Your task to perform on an android device: Open calendar and show me the second week of next month Image 0: 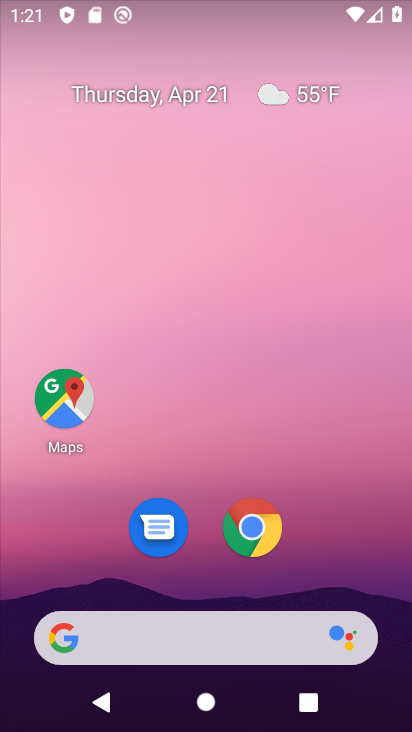
Step 0: drag from (308, 551) to (351, 158)
Your task to perform on an android device: Open calendar and show me the second week of next month Image 1: 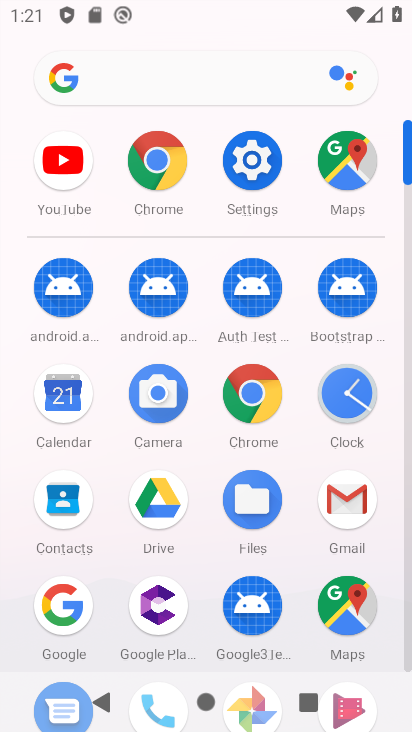
Step 1: click (52, 398)
Your task to perform on an android device: Open calendar and show me the second week of next month Image 2: 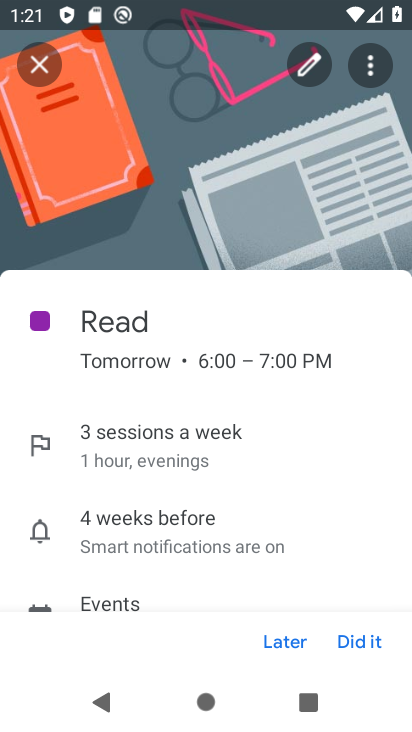
Step 2: click (26, 63)
Your task to perform on an android device: Open calendar and show me the second week of next month Image 3: 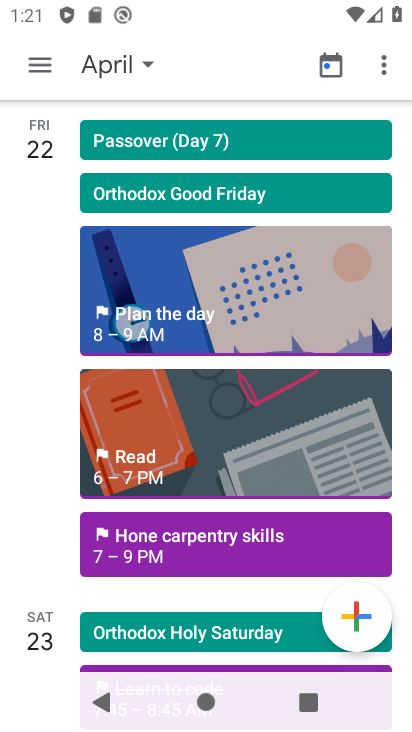
Step 3: click (149, 63)
Your task to perform on an android device: Open calendar and show me the second week of next month Image 4: 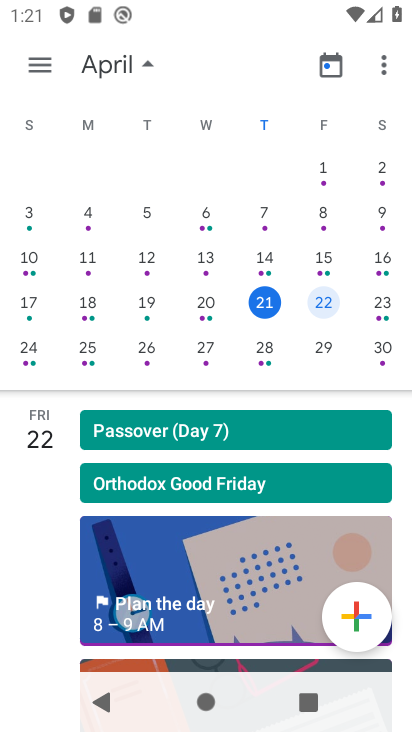
Step 4: drag from (354, 236) to (26, 230)
Your task to perform on an android device: Open calendar and show me the second week of next month Image 5: 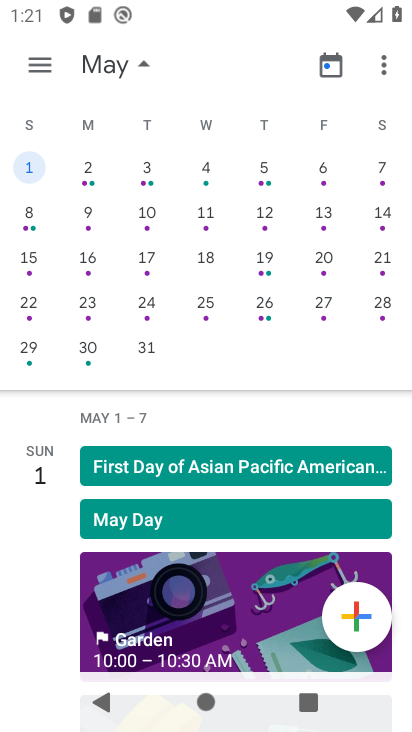
Step 5: click (145, 215)
Your task to perform on an android device: Open calendar and show me the second week of next month Image 6: 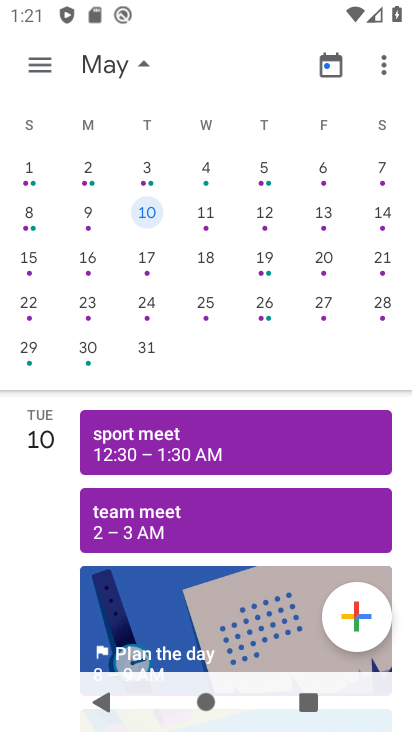
Step 6: task complete